Your task to perform on an android device: What's on my calendar today? Image 0: 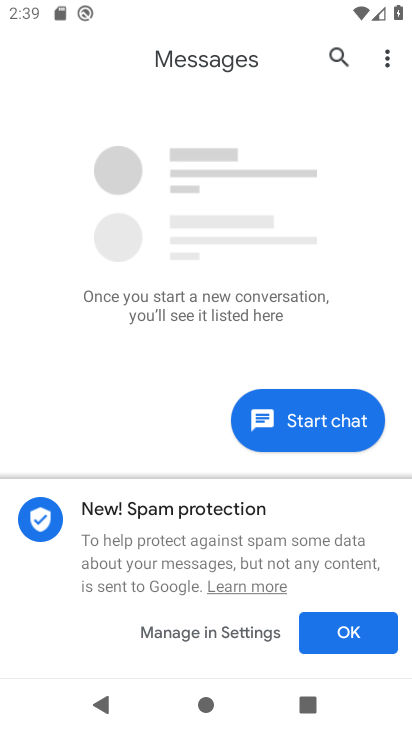
Step 0: press home button
Your task to perform on an android device: What's on my calendar today? Image 1: 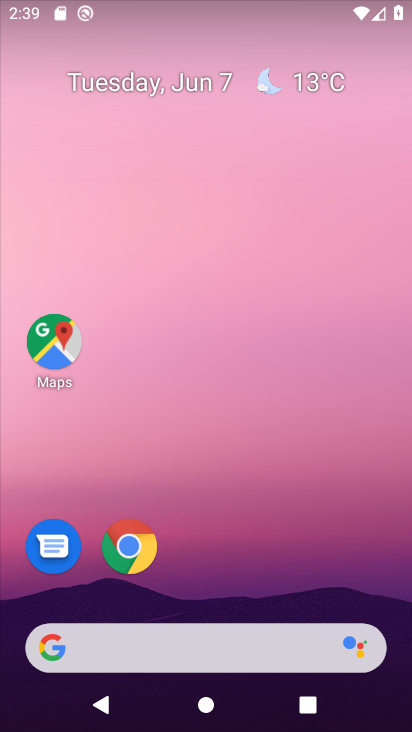
Step 1: drag from (278, 570) to (292, 192)
Your task to perform on an android device: What's on my calendar today? Image 2: 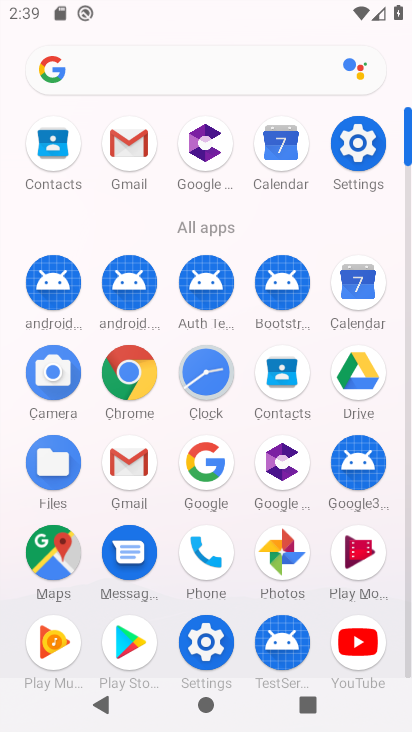
Step 2: click (354, 304)
Your task to perform on an android device: What's on my calendar today? Image 3: 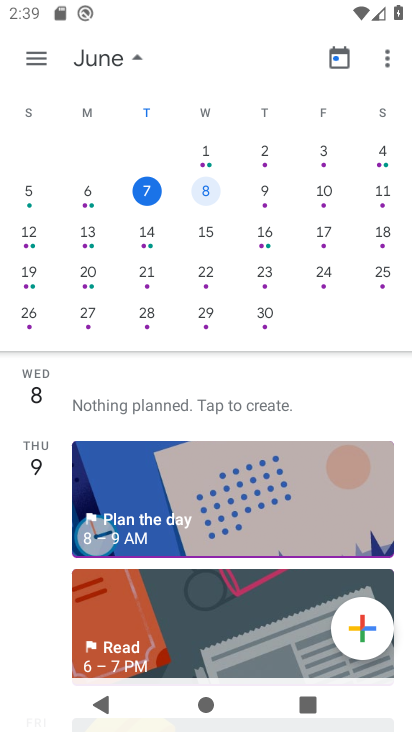
Step 3: drag from (165, 417) to (164, 598)
Your task to perform on an android device: What's on my calendar today? Image 4: 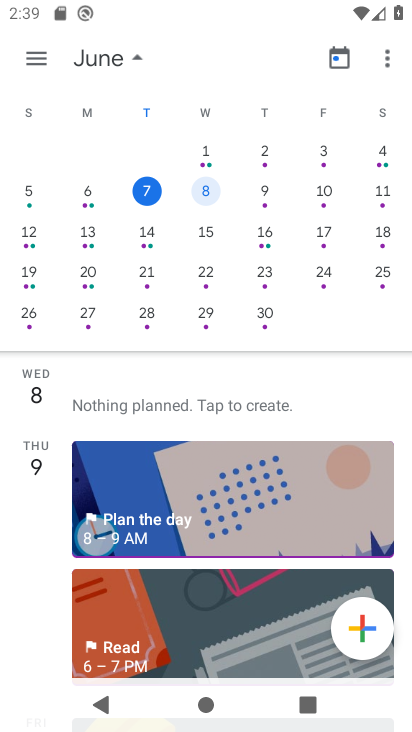
Step 4: click (145, 180)
Your task to perform on an android device: What's on my calendar today? Image 5: 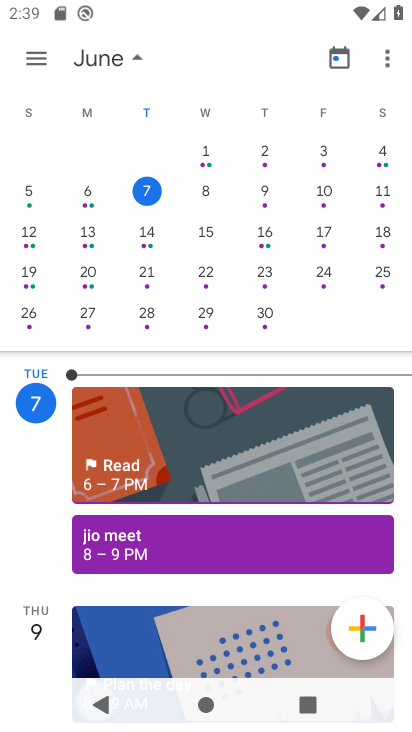
Step 5: click (197, 537)
Your task to perform on an android device: What's on my calendar today? Image 6: 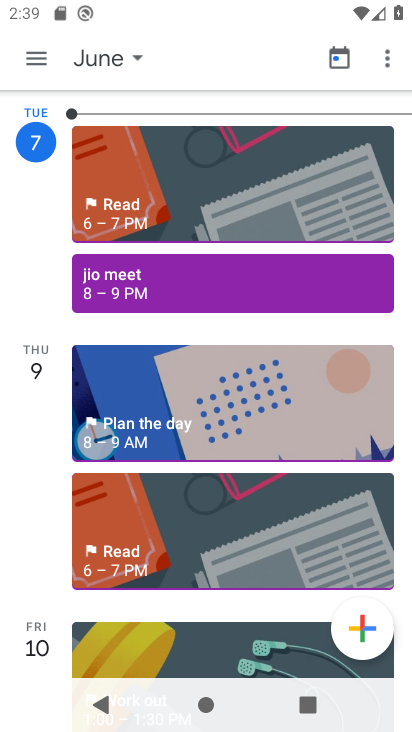
Step 6: click (165, 271)
Your task to perform on an android device: What's on my calendar today? Image 7: 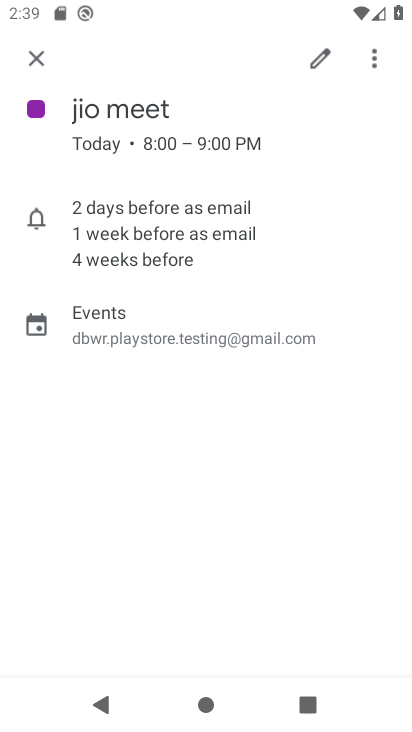
Step 7: task complete